Your task to perform on an android device: turn on location history Image 0: 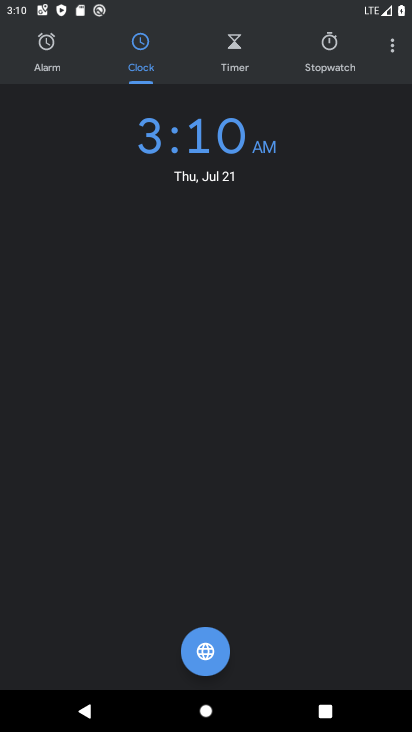
Step 0: press home button
Your task to perform on an android device: turn on location history Image 1: 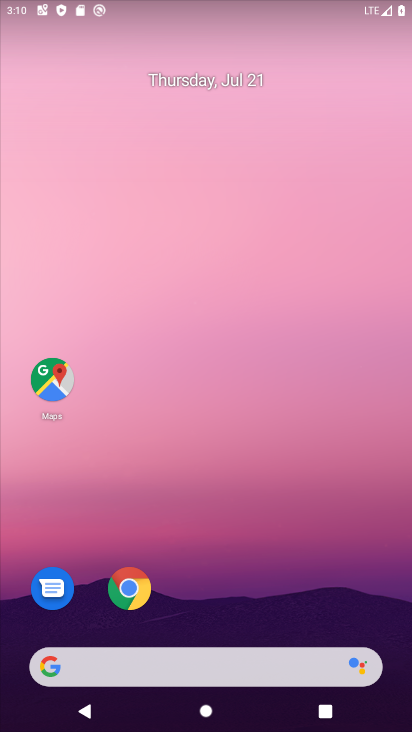
Step 1: drag from (285, 616) to (274, 92)
Your task to perform on an android device: turn on location history Image 2: 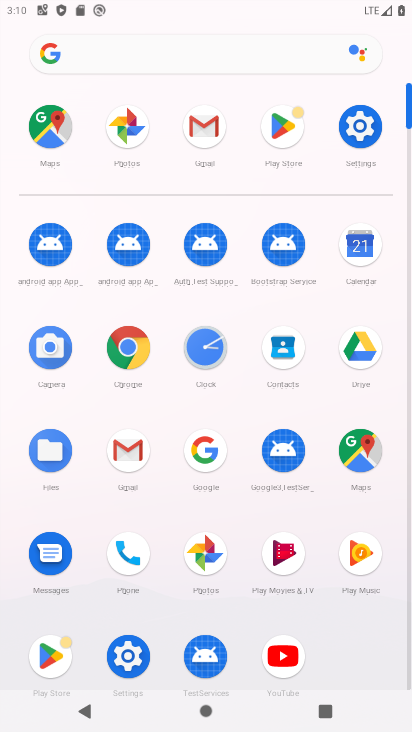
Step 2: click (370, 136)
Your task to perform on an android device: turn on location history Image 3: 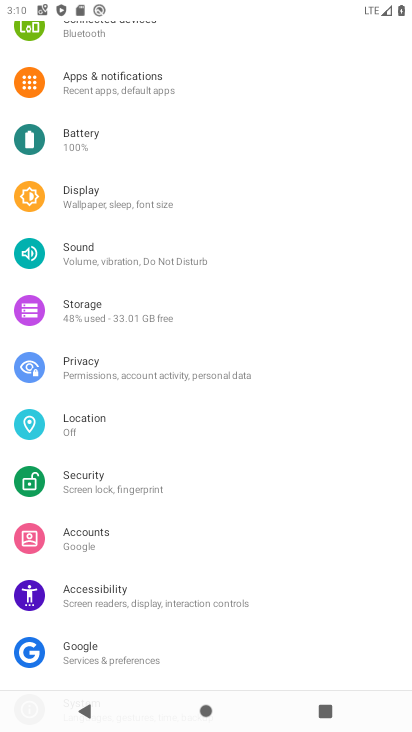
Step 3: click (95, 419)
Your task to perform on an android device: turn on location history Image 4: 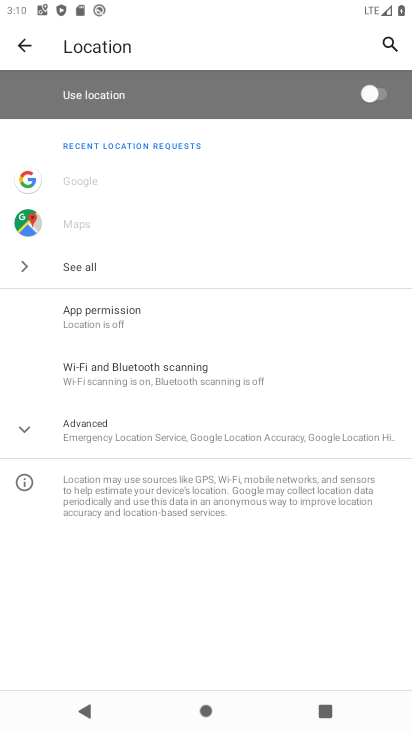
Step 4: click (147, 430)
Your task to perform on an android device: turn on location history Image 5: 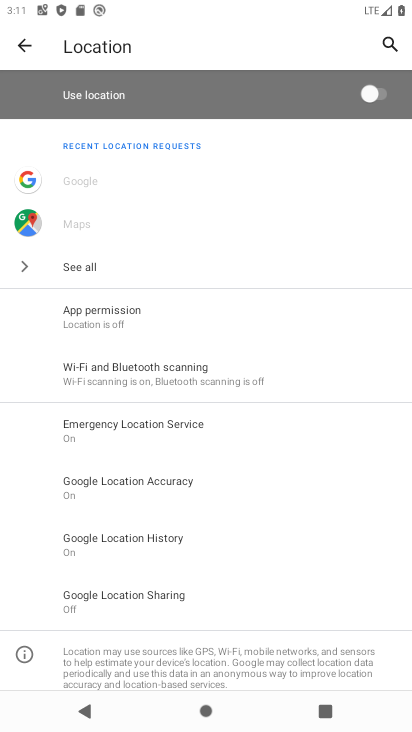
Step 5: click (155, 536)
Your task to perform on an android device: turn on location history Image 6: 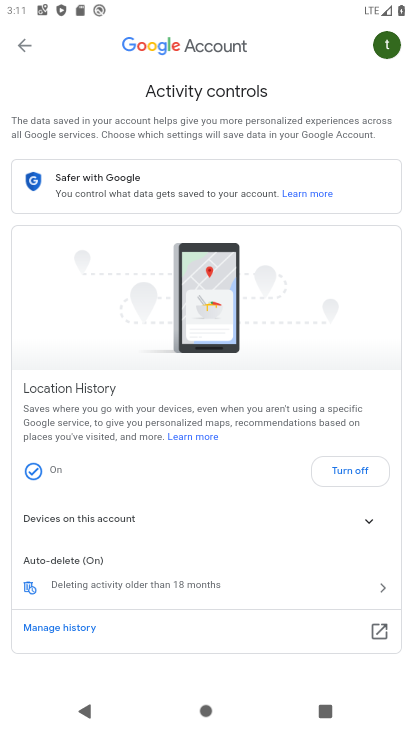
Step 6: task complete